Your task to perform on an android device: Open Google Image 0: 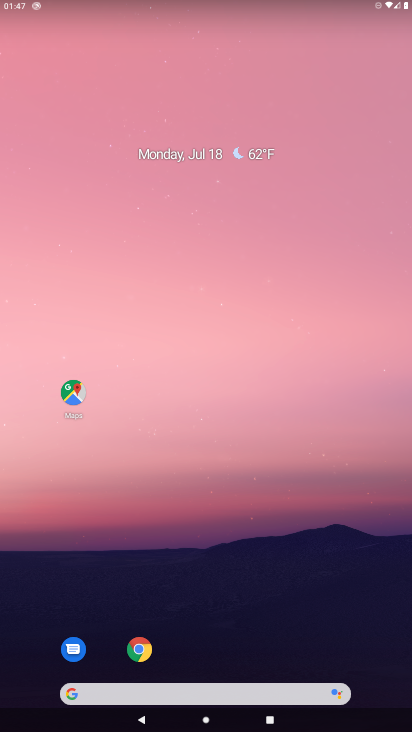
Step 0: click (121, 687)
Your task to perform on an android device: Open Google Image 1: 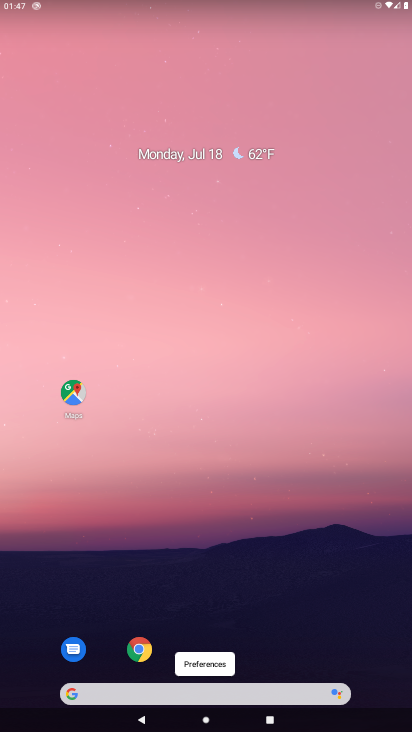
Step 1: click (113, 684)
Your task to perform on an android device: Open Google Image 2: 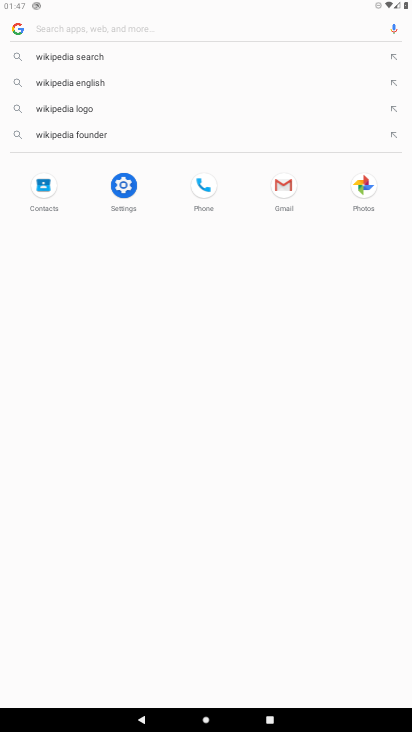
Step 2: task complete